Your task to perform on an android device: turn on data saver in the chrome app Image 0: 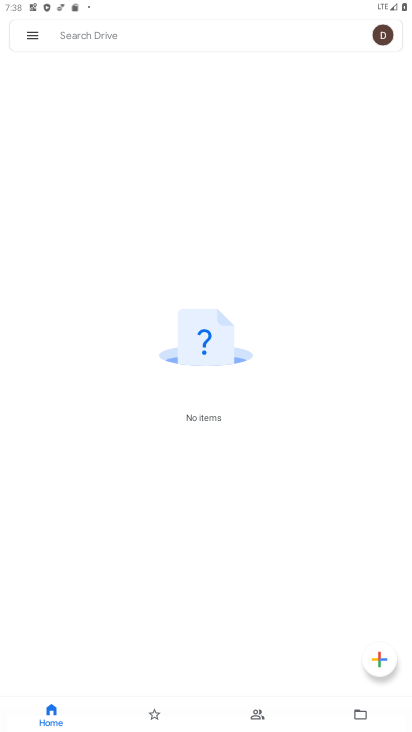
Step 0: press home button
Your task to perform on an android device: turn on data saver in the chrome app Image 1: 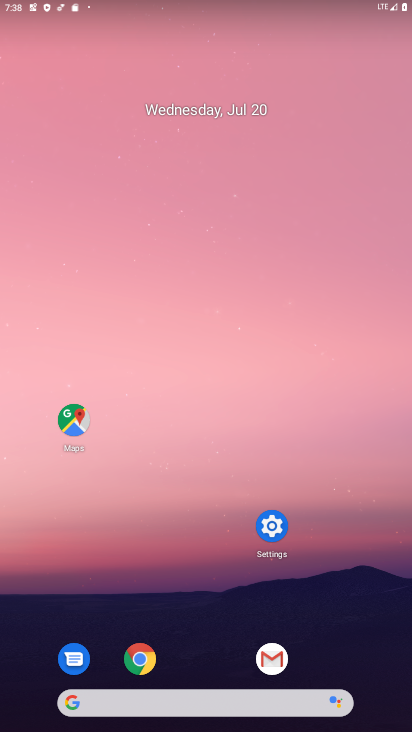
Step 1: click (151, 651)
Your task to perform on an android device: turn on data saver in the chrome app Image 2: 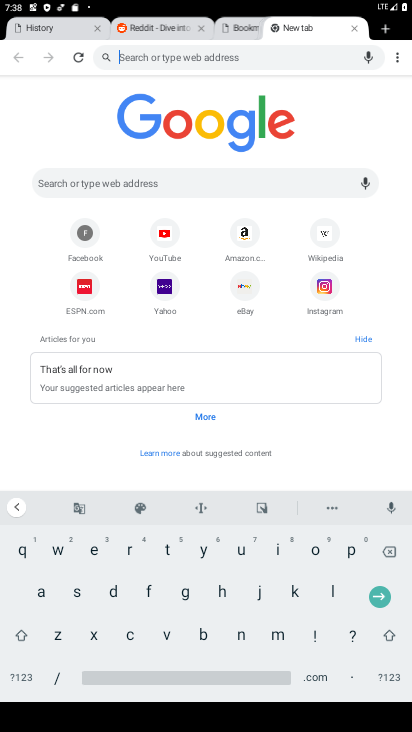
Step 2: click (395, 60)
Your task to perform on an android device: turn on data saver in the chrome app Image 3: 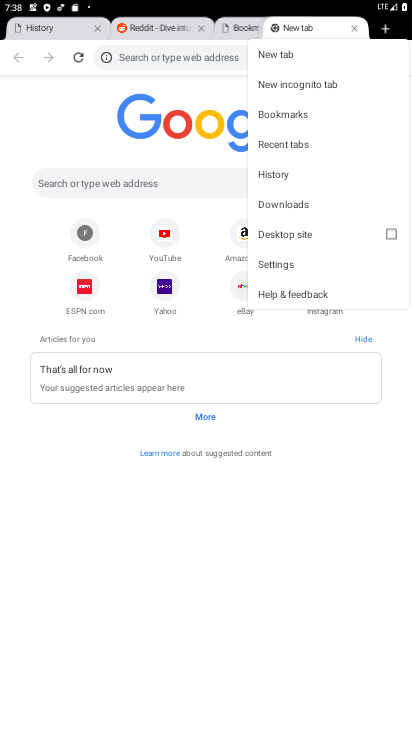
Step 3: click (294, 257)
Your task to perform on an android device: turn on data saver in the chrome app Image 4: 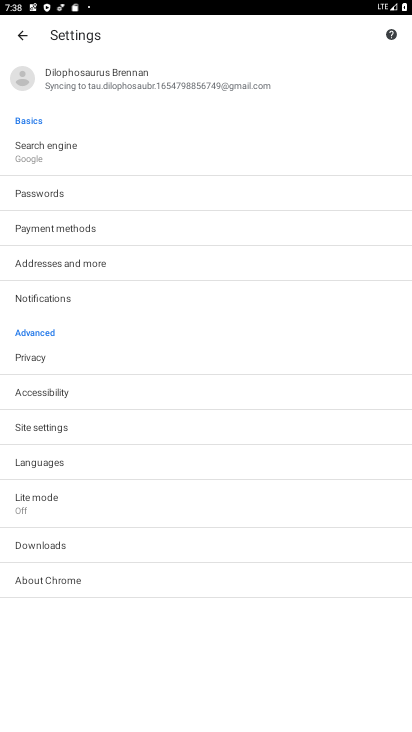
Step 4: click (62, 502)
Your task to perform on an android device: turn on data saver in the chrome app Image 5: 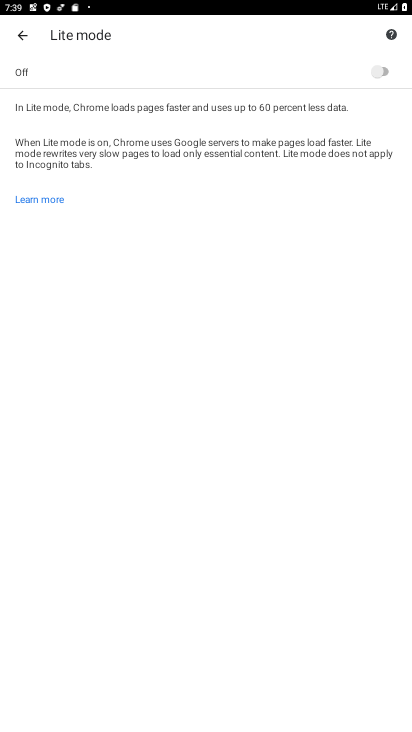
Step 5: click (380, 74)
Your task to perform on an android device: turn on data saver in the chrome app Image 6: 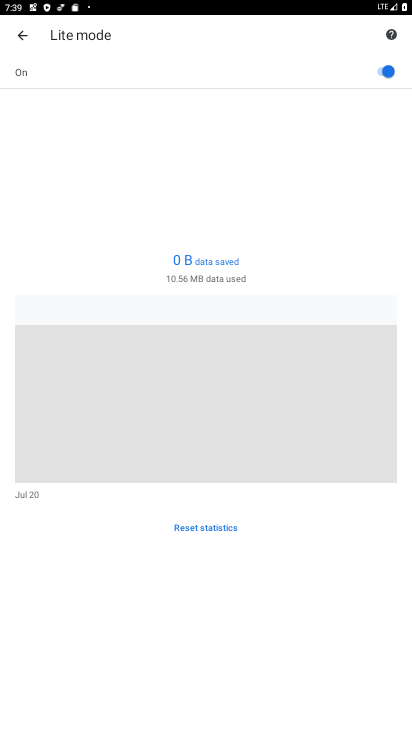
Step 6: task complete